Your task to perform on an android device: Open Youtube and go to the subscriptions tab Image 0: 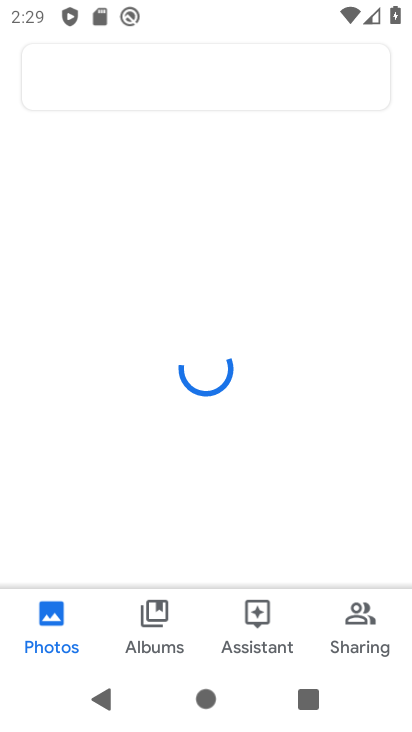
Step 0: press home button
Your task to perform on an android device: Open Youtube and go to the subscriptions tab Image 1: 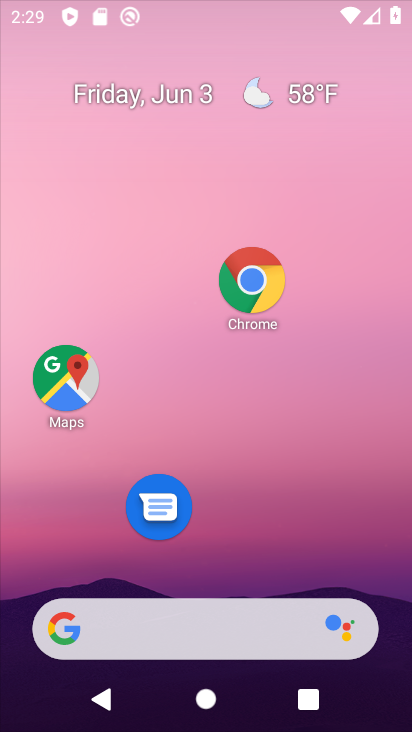
Step 1: drag from (241, 553) to (275, 55)
Your task to perform on an android device: Open Youtube and go to the subscriptions tab Image 2: 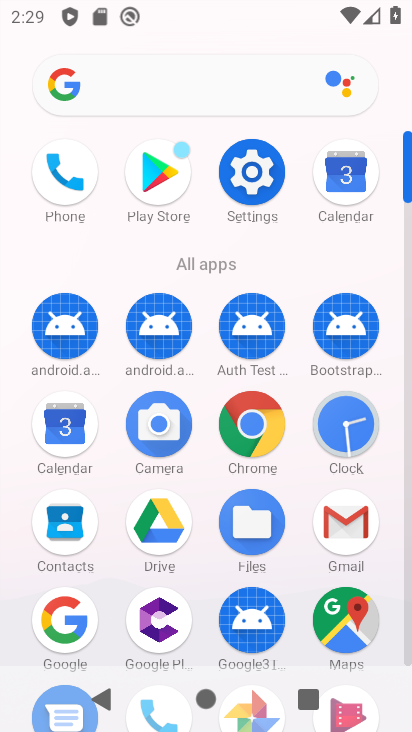
Step 2: drag from (290, 586) to (276, 124)
Your task to perform on an android device: Open Youtube and go to the subscriptions tab Image 3: 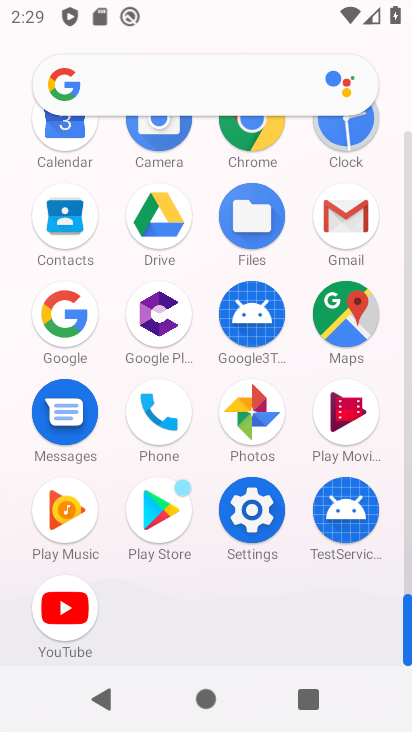
Step 3: click (65, 612)
Your task to perform on an android device: Open Youtube and go to the subscriptions tab Image 4: 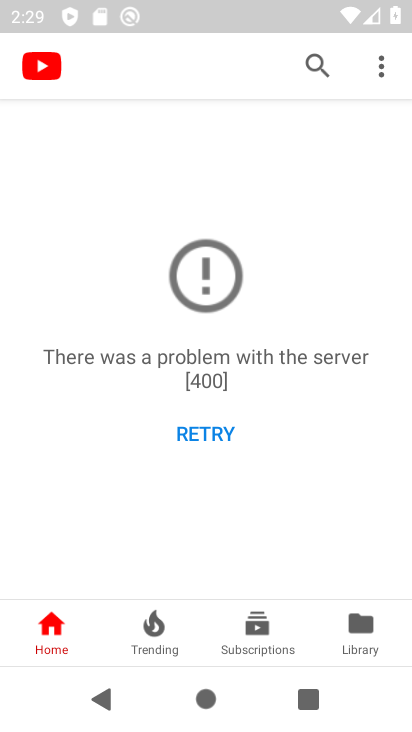
Step 4: click (256, 615)
Your task to perform on an android device: Open Youtube and go to the subscriptions tab Image 5: 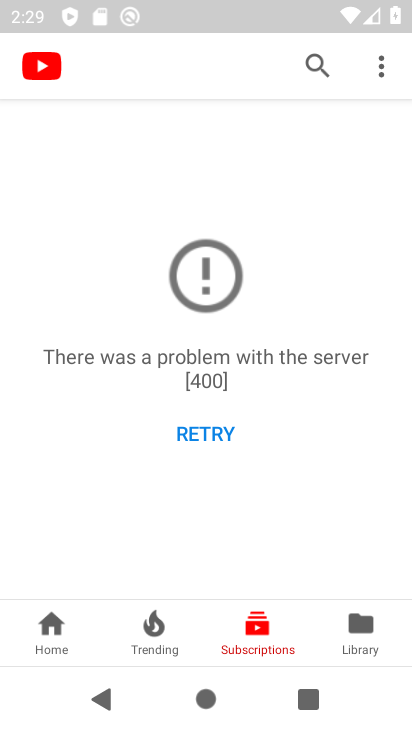
Step 5: click (204, 432)
Your task to perform on an android device: Open Youtube and go to the subscriptions tab Image 6: 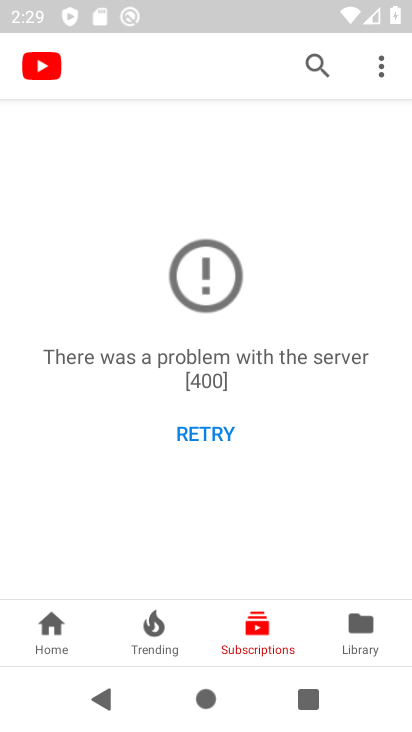
Step 6: click (204, 432)
Your task to perform on an android device: Open Youtube and go to the subscriptions tab Image 7: 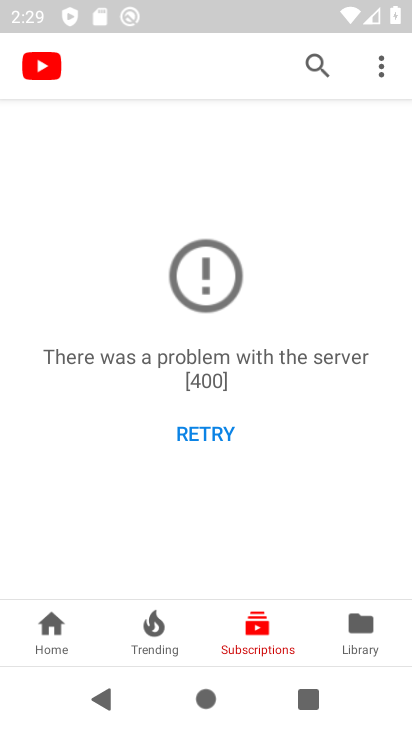
Step 7: task complete